Your task to perform on an android device: Go to CNN.com Image 0: 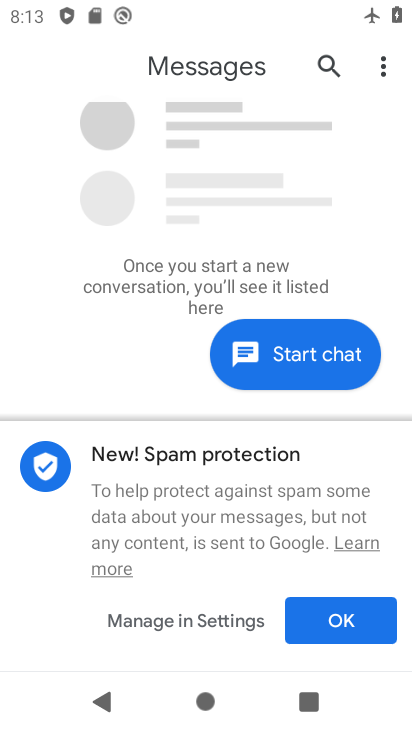
Step 0: press home button
Your task to perform on an android device: Go to CNN.com Image 1: 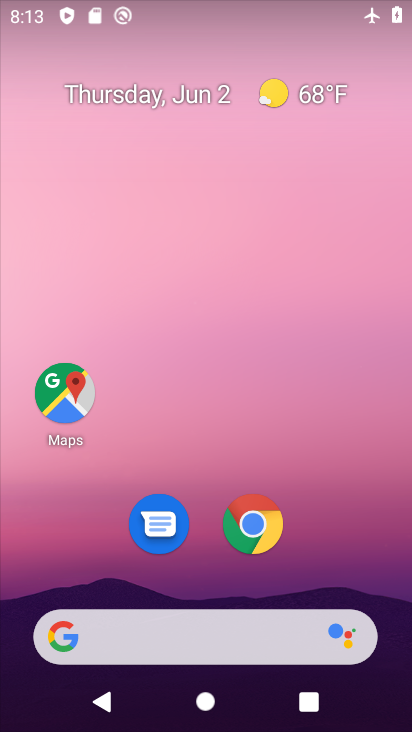
Step 1: click (262, 644)
Your task to perform on an android device: Go to CNN.com Image 2: 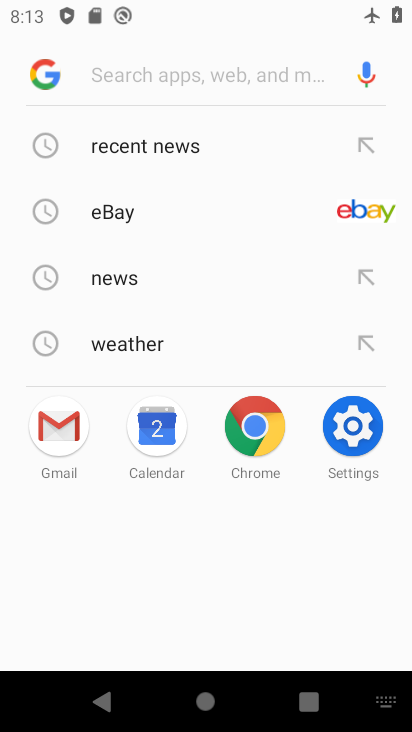
Step 2: type "cnn.com"
Your task to perform on an android device: Go to CNN.com Image 3: 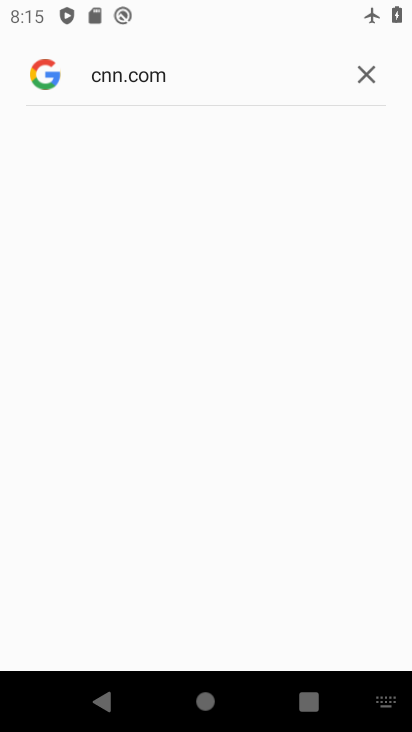
Step 3: task complete